Your task to perform on an android device: Show me the alarms in the clock app Image 0: 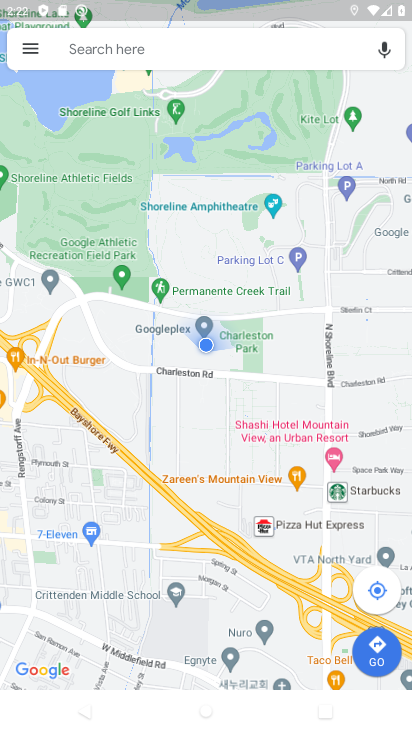
Step 0: press back button
Your task to perform on an android device: Show me the alarms in the clock app Image 1: 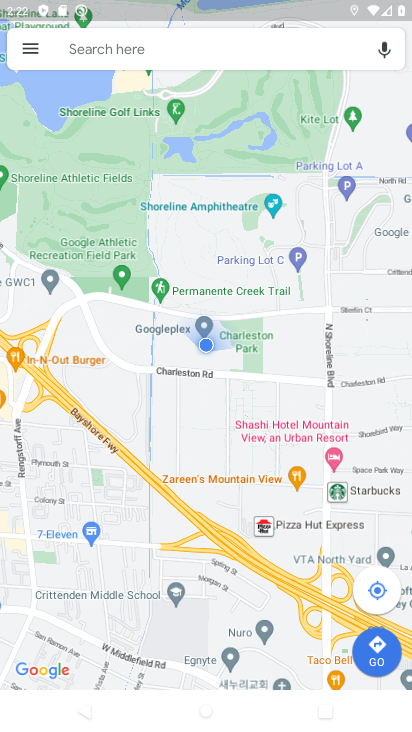
Step 1: press back button
Your task to perform on an android device: Show me the alarms in the clock app Image 2: 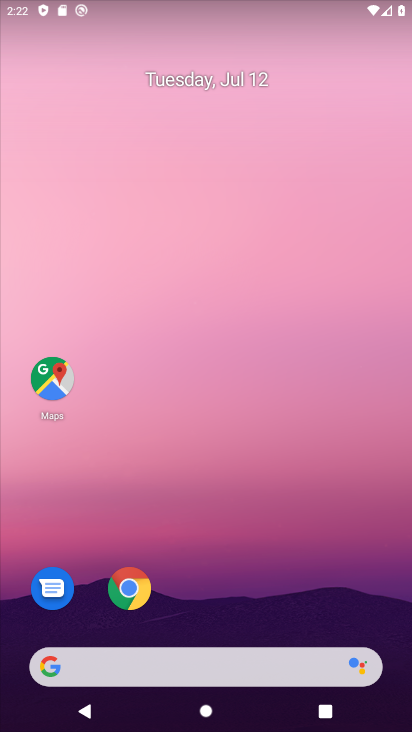
Step 2: press home button
Your task to perform on an android device: Show me the alarms in the clock app Image 3: 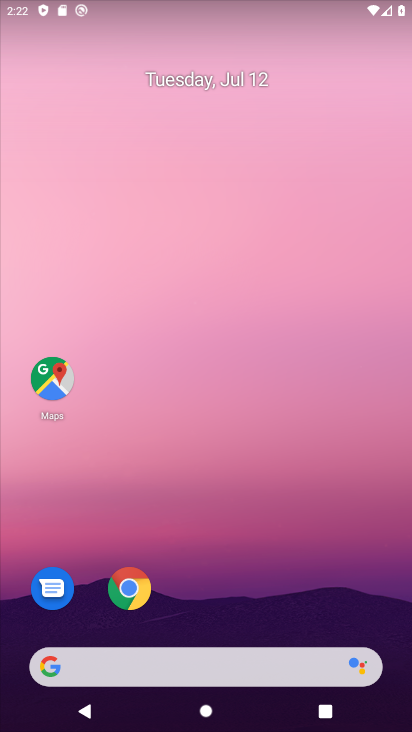
Step 3: press home button
Your task to perform on an android device: Show me the alarms in the clock app Image 4: 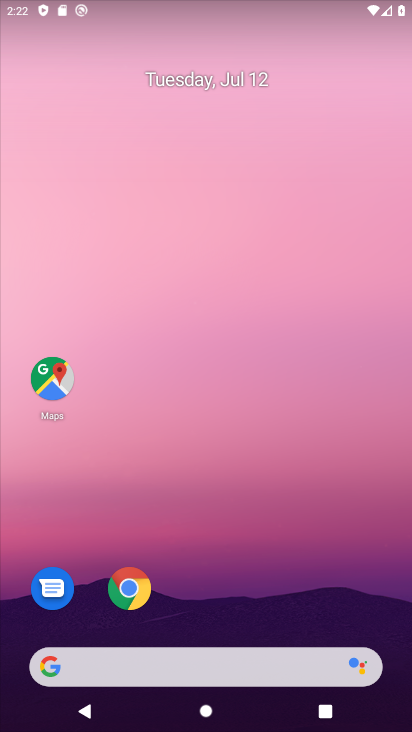
Step 4: drag from (250, 9) to (257, 82)
Your task to perform on an android device: Show me the alarms in the clock app Image 5: 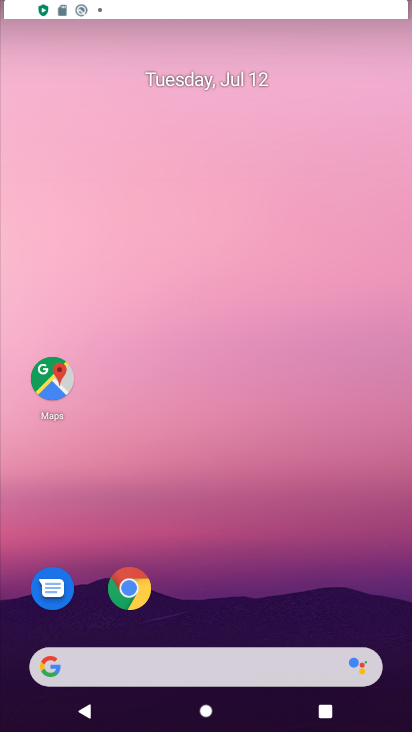
Step 5: drag from (265, 592) to (136, 22)
Your task to perform on an android device: Show me the alarms in the clock app Image 6: 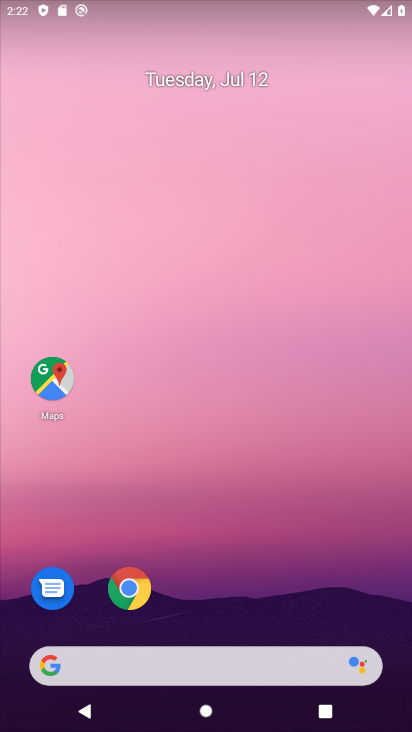
Step 6: drag from (311, 535) to (222, 91)
Your task to perform on an android device: Show me the alarms in the clock app Image 7: 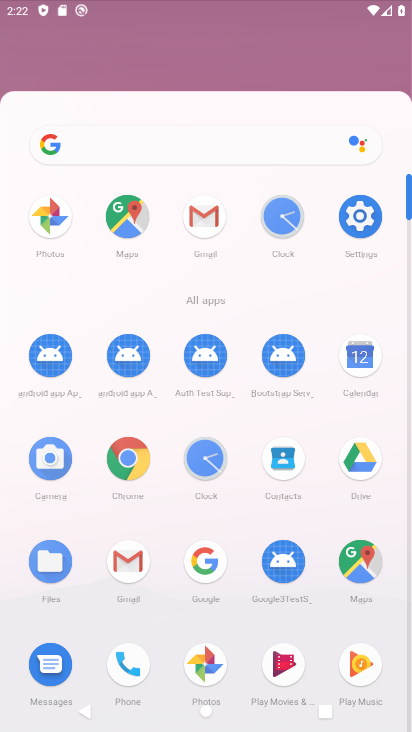
Step 7: drag from (247, 679) to (144, 170)
Your task to perform on an android device: Show me the alarms in the clock app Image 8: 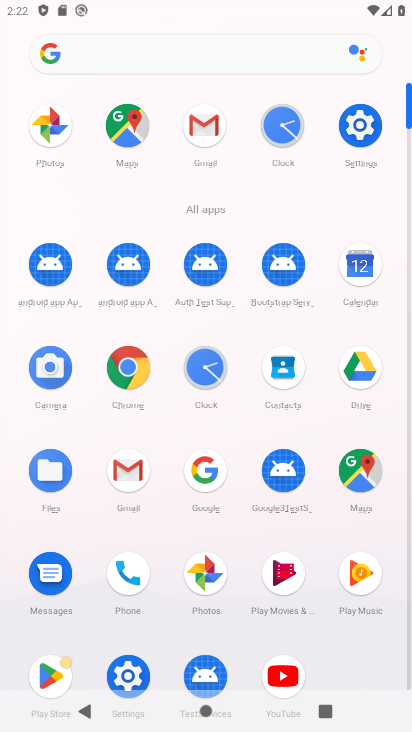
Step 8: click (197, 371)
Your task to perform on an android device: Show me the alarms in the clock app Image 9: 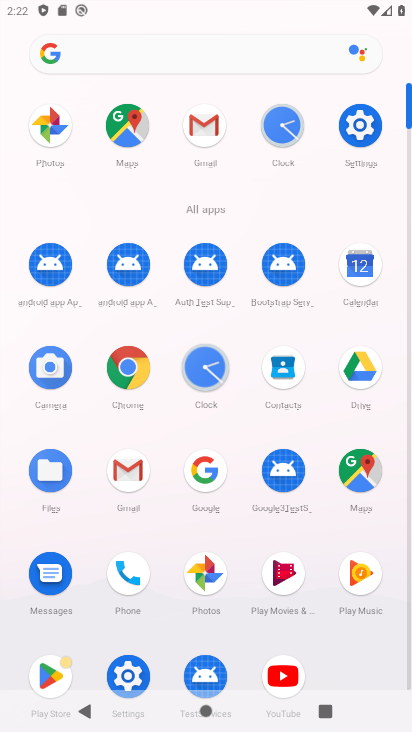
Step 9: click (200, 371)
Your task to perform on an android device: Show me the alarms in the clock app Image 10: 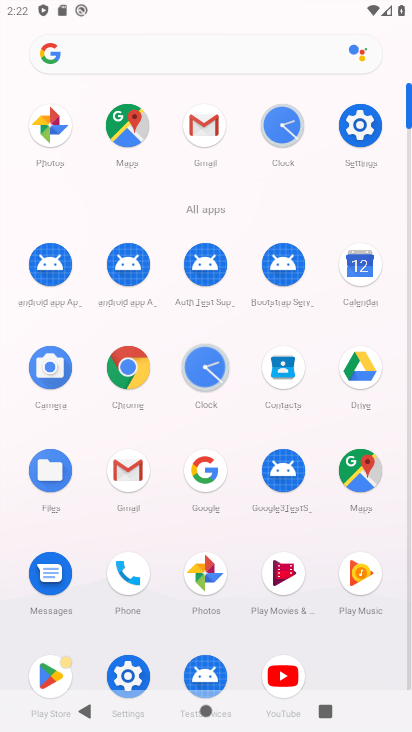
Step 10: click (201, 371)
Your task to perform on an android device: Show me the alarms in the clock app Image 11: 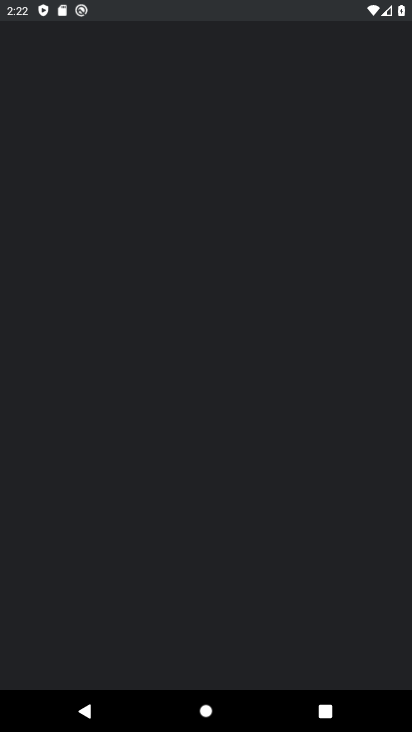
Step 11: click (201, 371)
Your task to perform on an android device: Show me the alarms in the clock app Image 12: 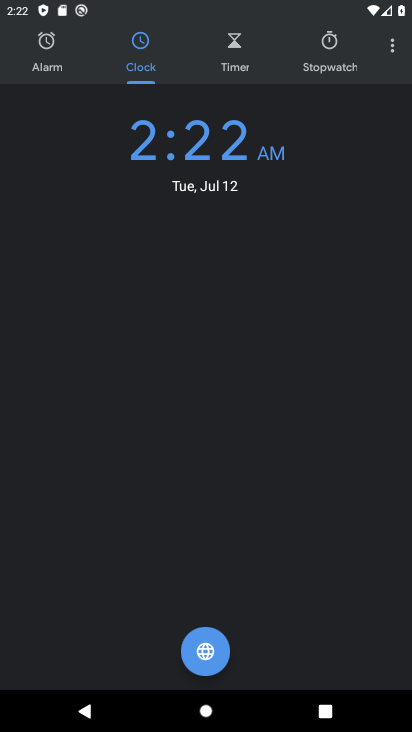
Step 12: click (139, 57)
Your task to perform on an android device: Show me the alarms in the clock app Image 13: 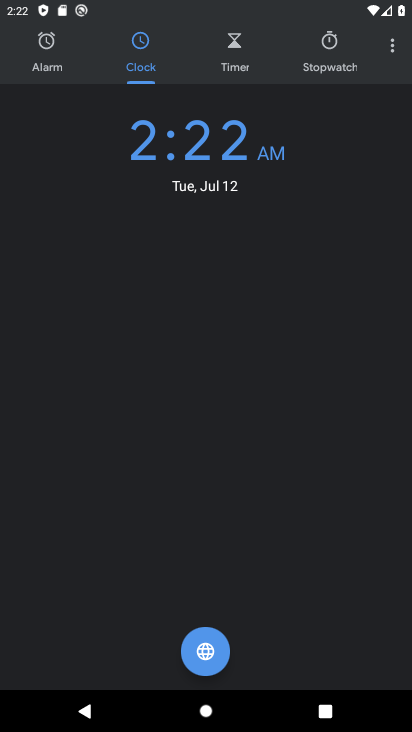
Step 13: click (57, 46)
Your task to perform on an android device: Show me the alarms in the clock app Image 14: 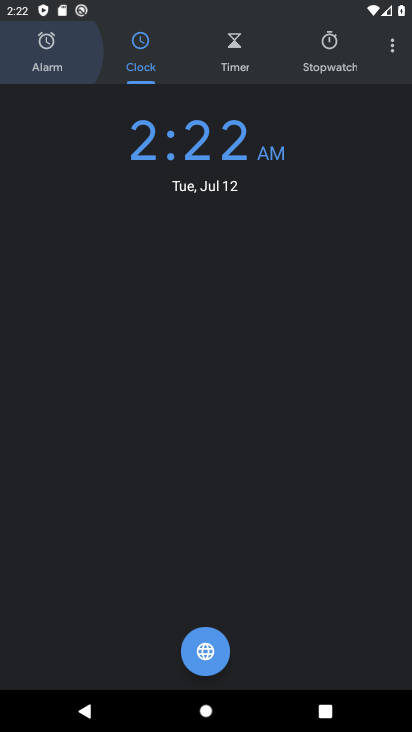
Step 14: click (57, 46)
Your task to perform on an android device: Show me the alarms in the clock app Image 15: 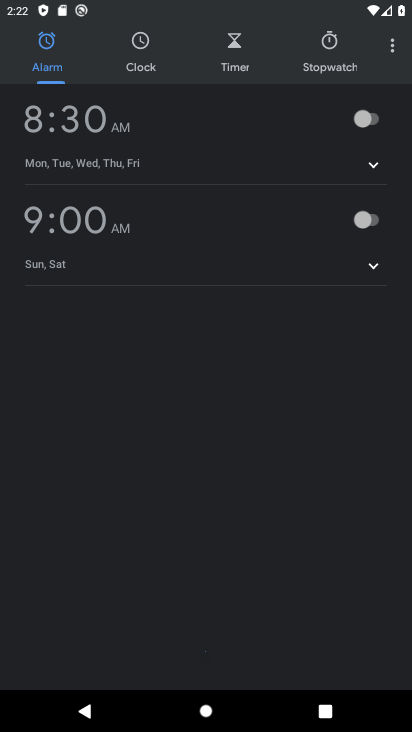
Step 15: click (55, 44)
Your task to perform on an android device: Show me the alarms in the clock app Image 16: 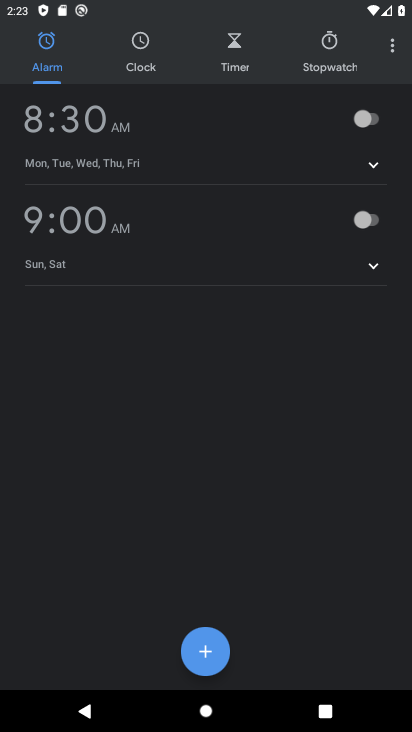
Step 16: task complete